Your task to perform on an android device: Toggle the flashlight Image 0: 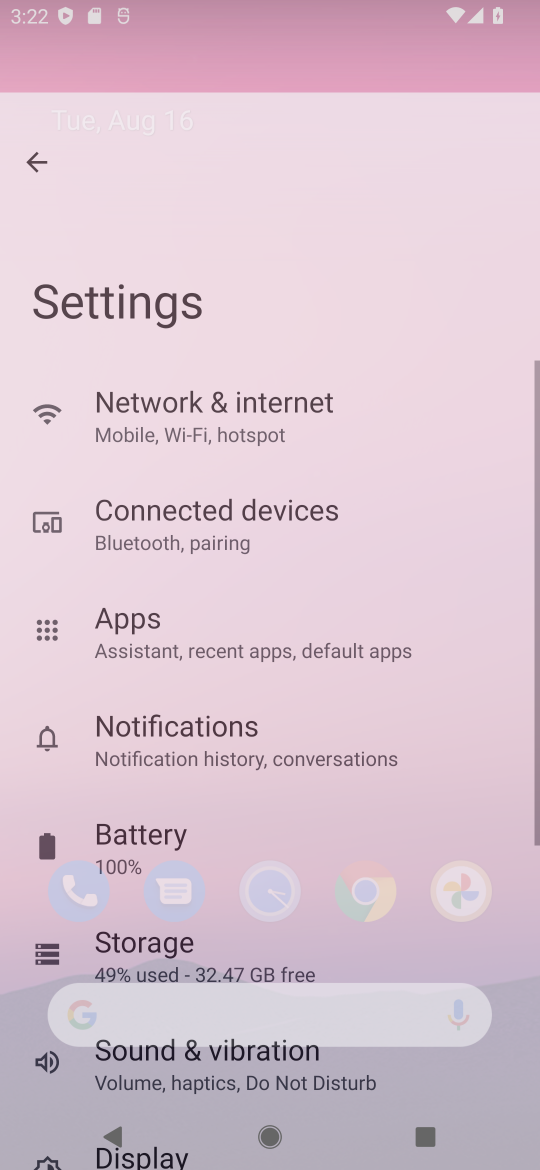
Step 0: press home button
Your task to perform on an android device: Toggle the flashlight Image 1: 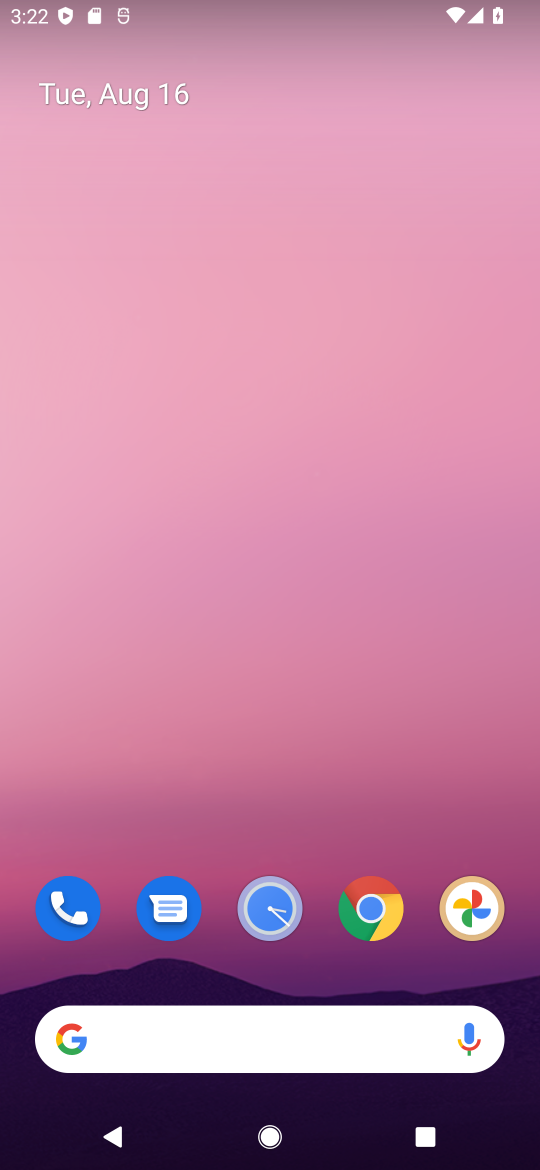
Step 1: drag from (333, 978) to (408, 178)
Your task to perform on an android device: Toggle the flashlight Image 2: 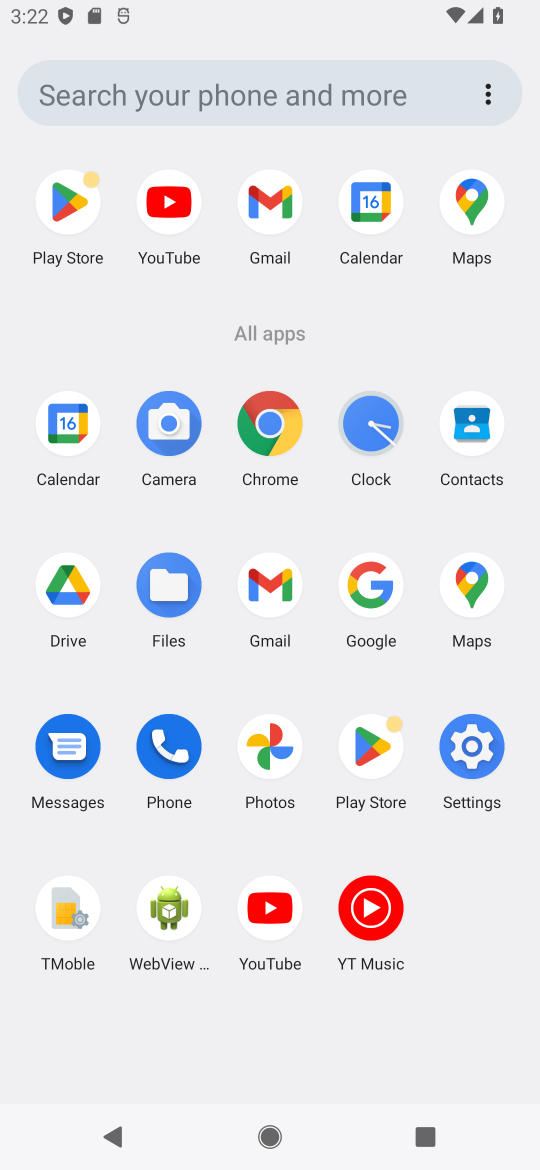
Step 2: click (466, 736)
Your task to perform on an android device: Toggle the flashlight Image 3: 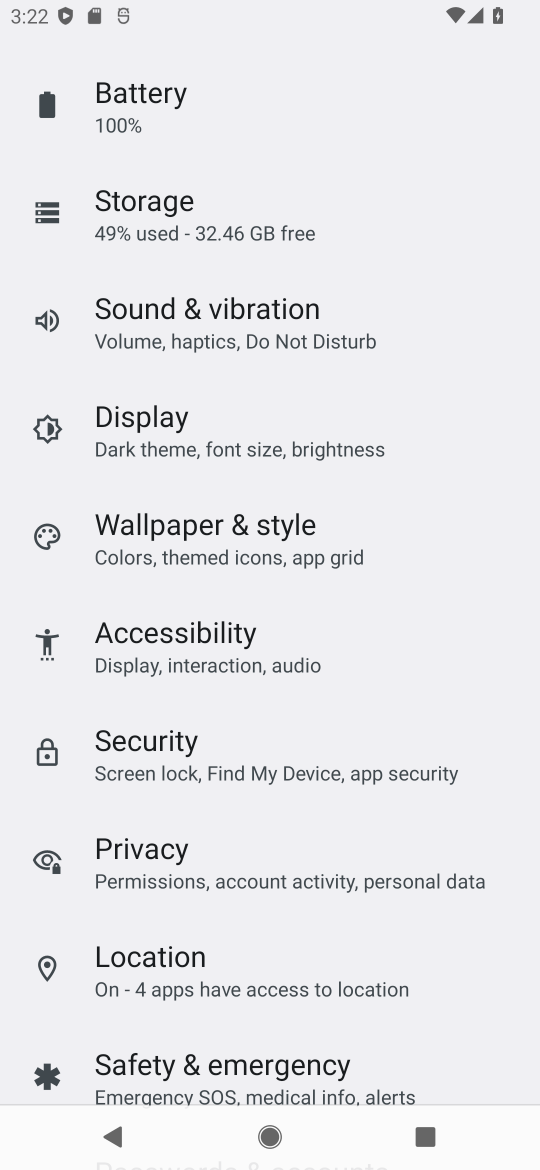
Step 3: drag from (258, 146) to (267, 1165)
Your task to perform on an android device: Toggle the flashlight Image 4: 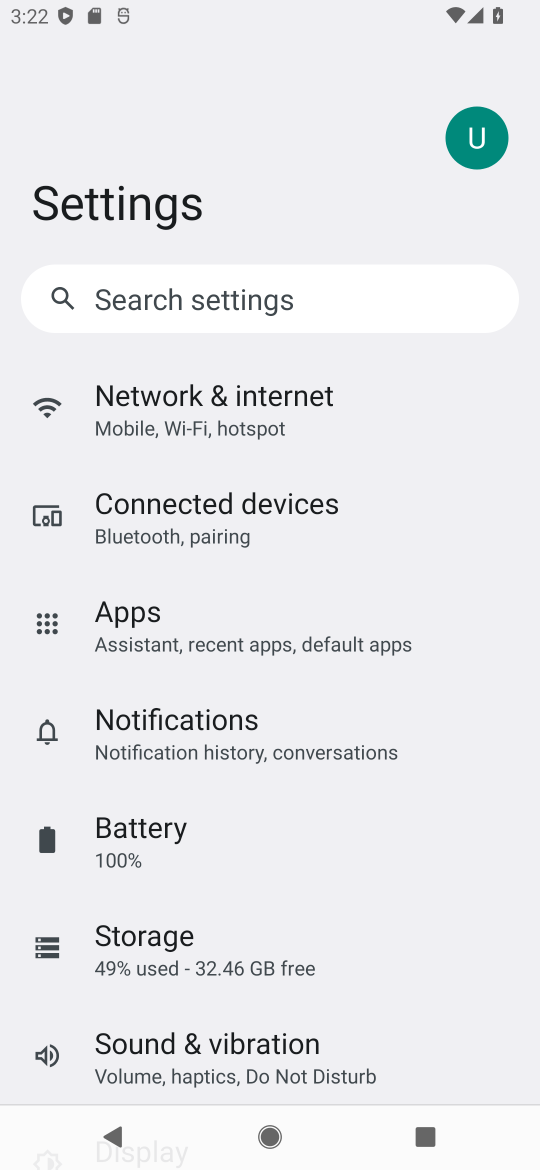
Step 4: click (159, 295)
Your task to perform on an android device: Toggle the flashlight Image 5: 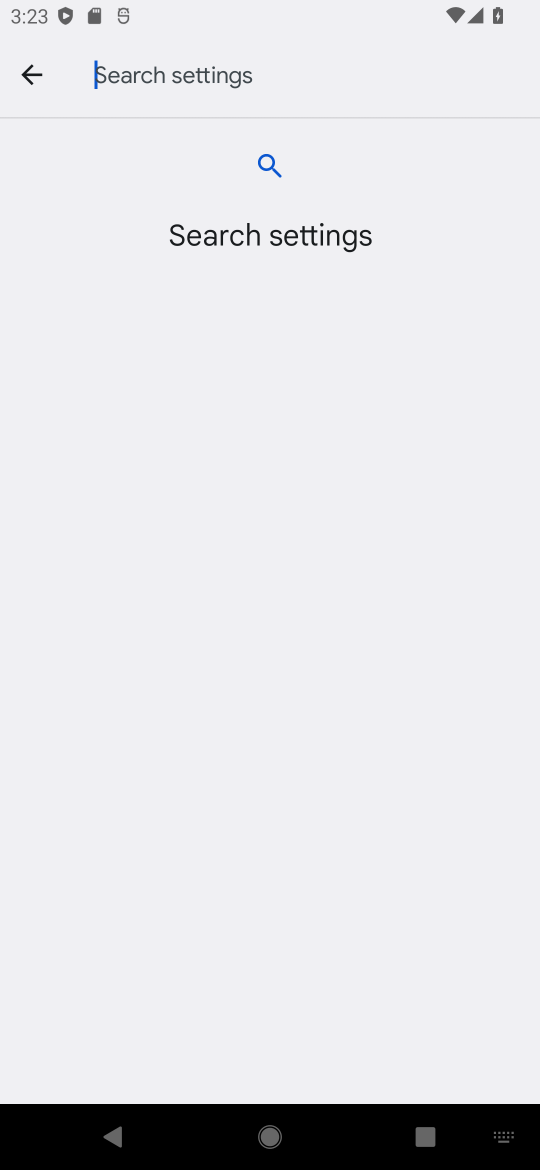
Step 5: type "flashlight"
Your task to perform on an android device: Toggle the flashlight Image 6: 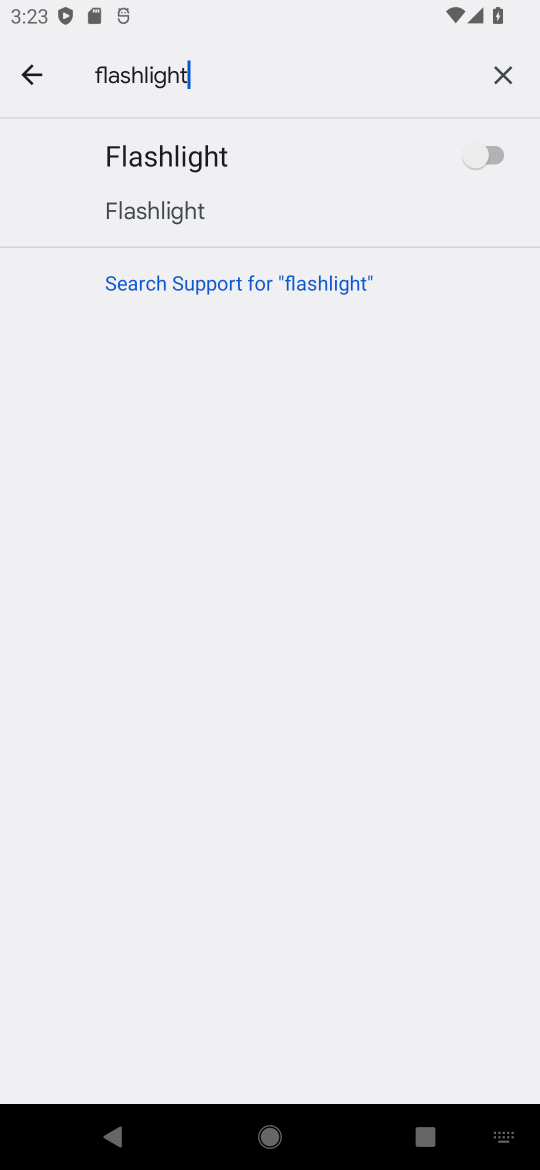
Step 6: click (497, 148)
Your task to perform on an android device: Toggle the flashlight Image 7: 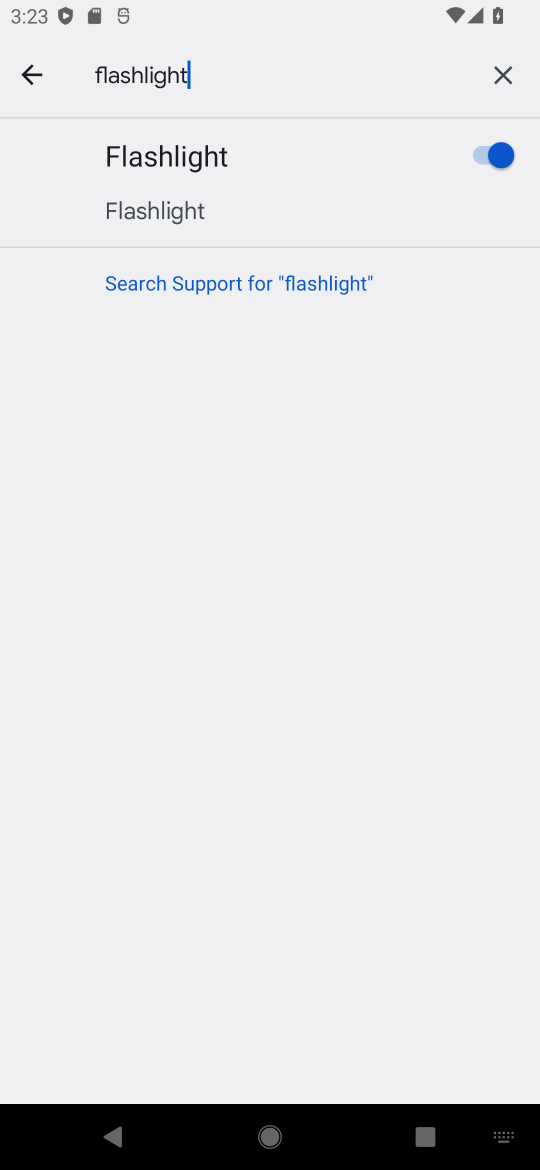
Step 7: task complete